Your task to perform on an android device: Add razer blade to the cart on walmart, then select checkout. Image 0: 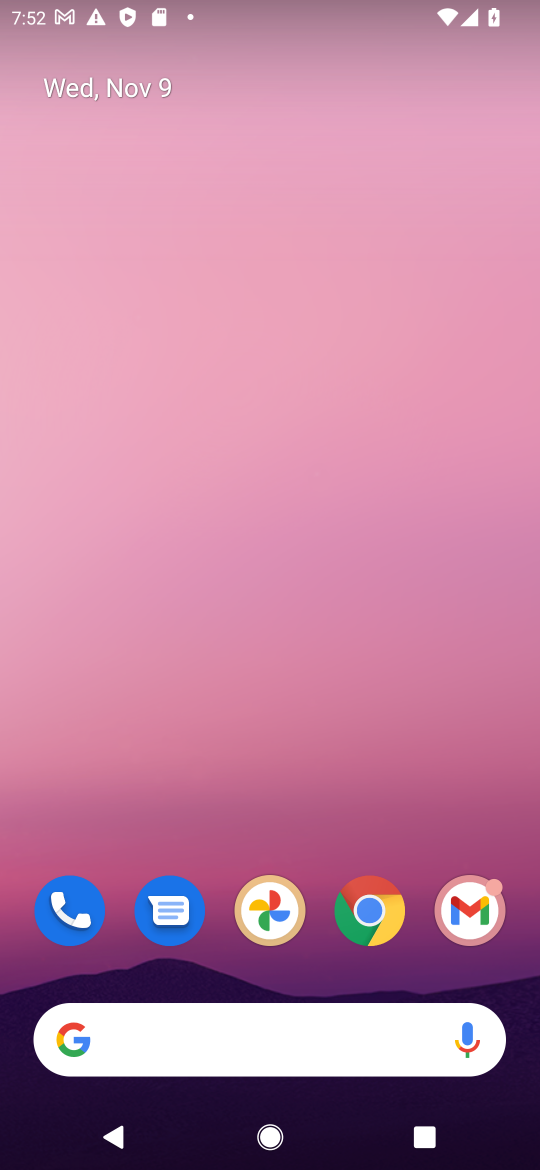
Step 0: click (371, 928)
Your task to perform on an android device: Add razer blade to the cart on walmart, then select checkout. Image 1: 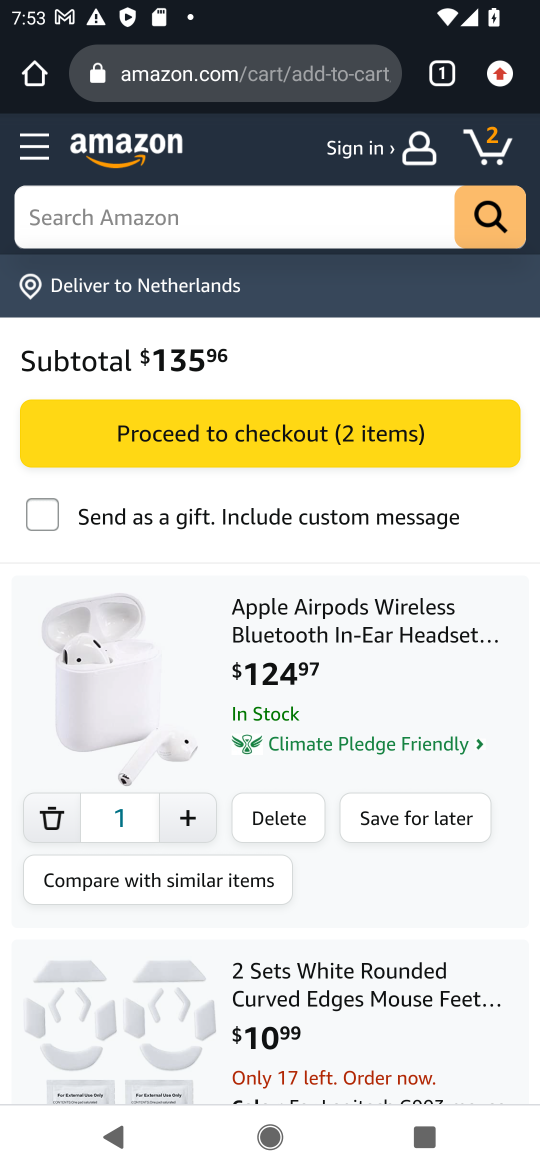
Step 1: click (208, 83)
Your task to perform on an android device: Add razer blade to the cart on walmart, then select checkout. Image 2: 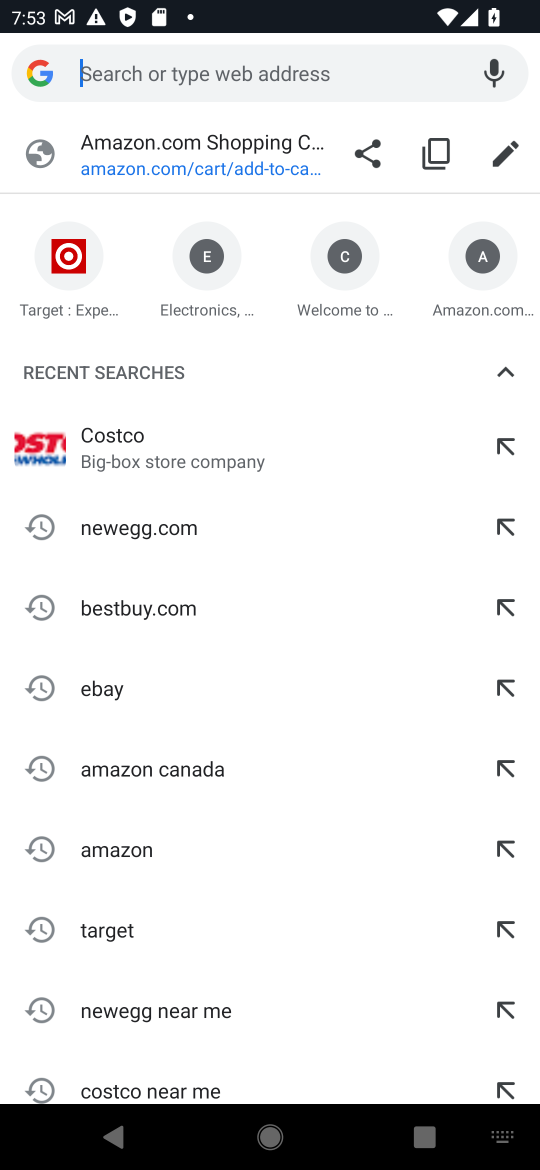
Step 2: type "walmart.com"
Your task to perform on an android device: Add razer blade to the cart on walmart, then select checkout. Image 3: 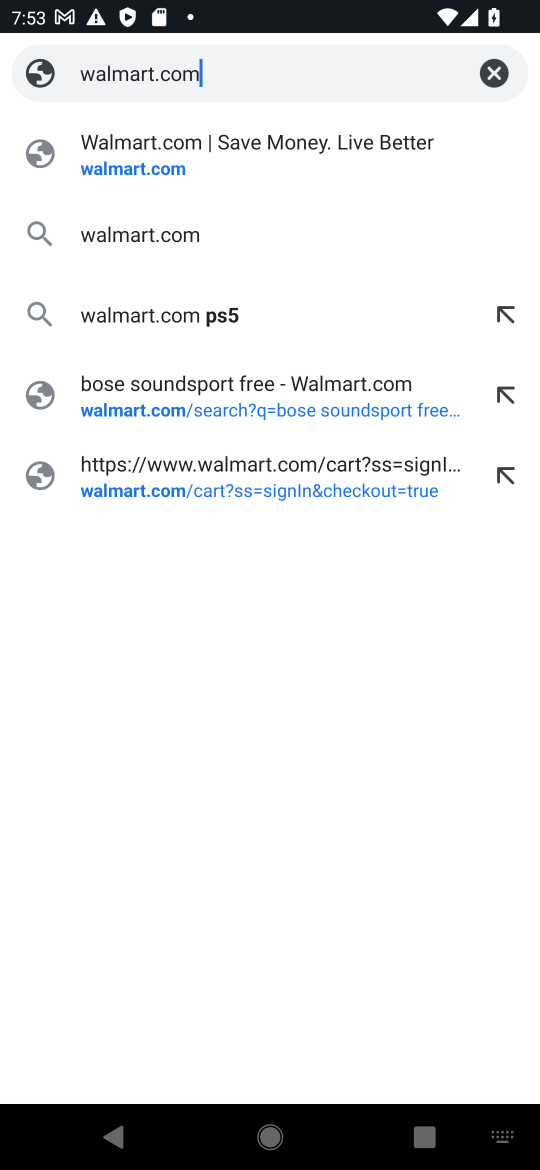
Step 3: click (123, 168)
Your task to perform on an android device: Add razer blade to the cart on walmart, then select checkout. Image 4: 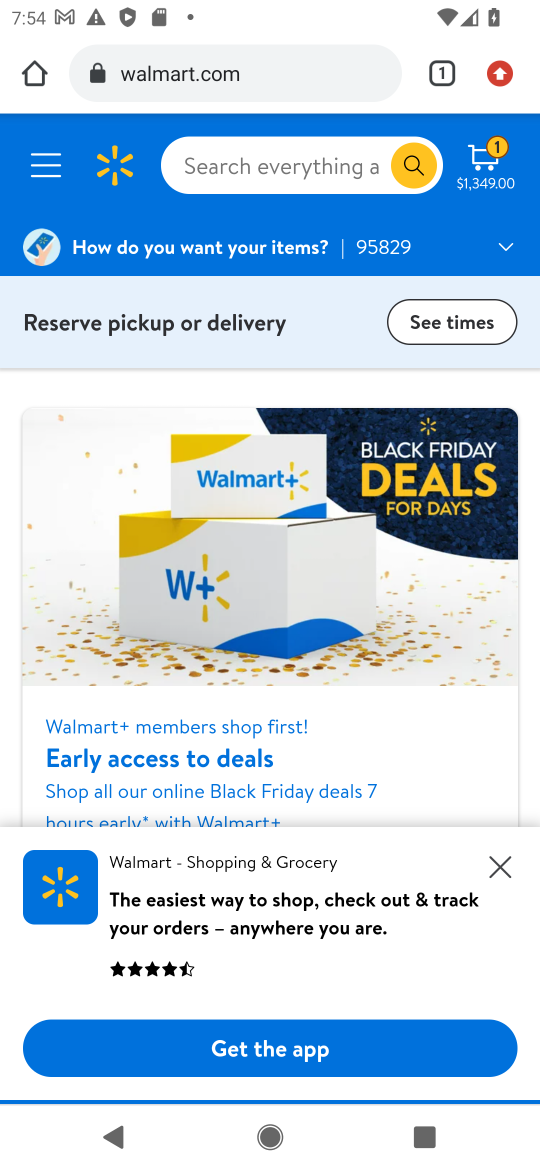
Step 4: click (312, 175)
Your task to perform on an android device: Add razer blade to the cart on walmart, then select checkout. Image 5: 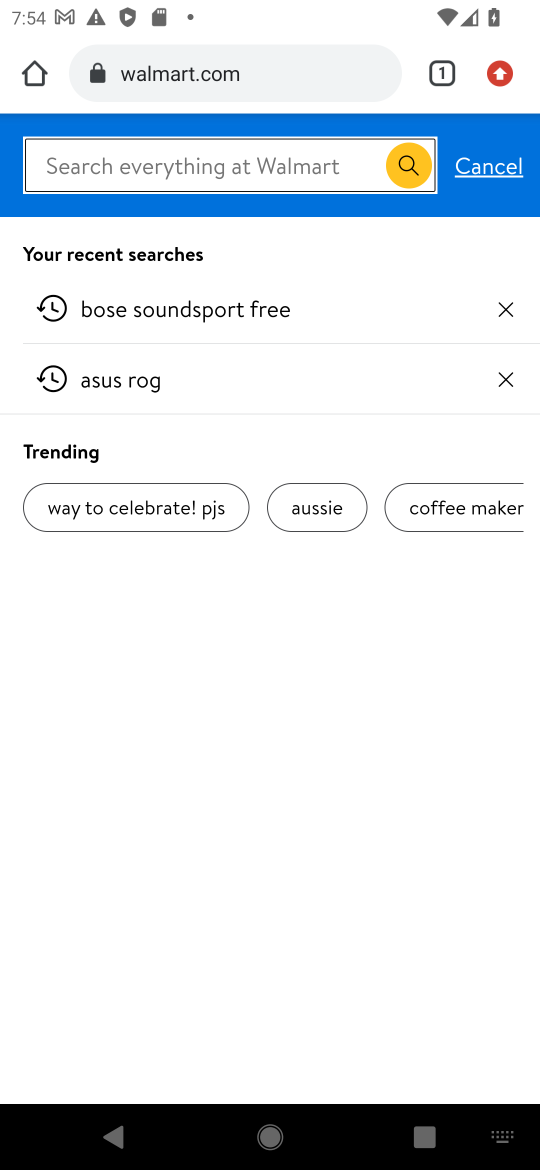
Step 5: type "razer blade"
Your task to perform on an android device: Add razer blade to the cart on walmart, then select checkout. Image 6: 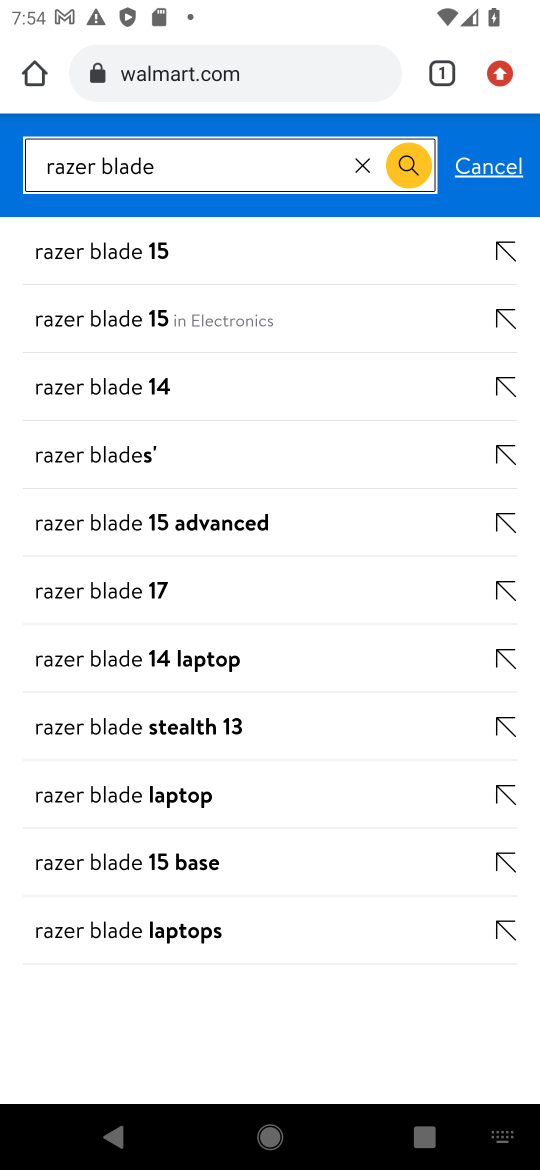
Step 6: click (414, 170)
Your task to perform on an android device: Add razer blade to the cart on walmart, then select checkout. Image 7: 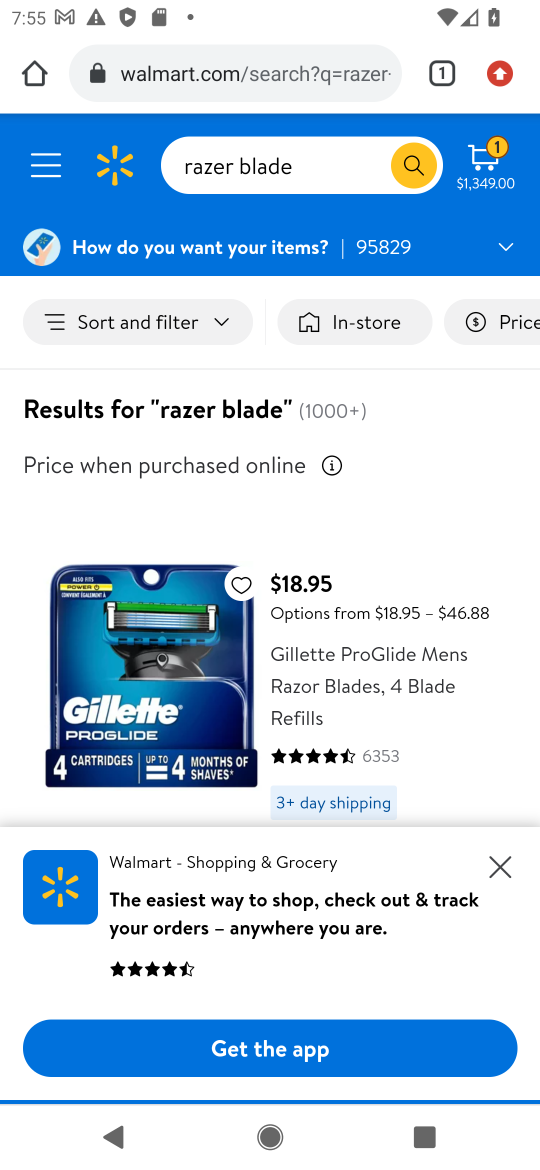
Step 7: drag from (385, 560) to (387, 378)
Your task to perform on an android device: Add razer blade to the cart on walmart, then select checkout. Image 8: 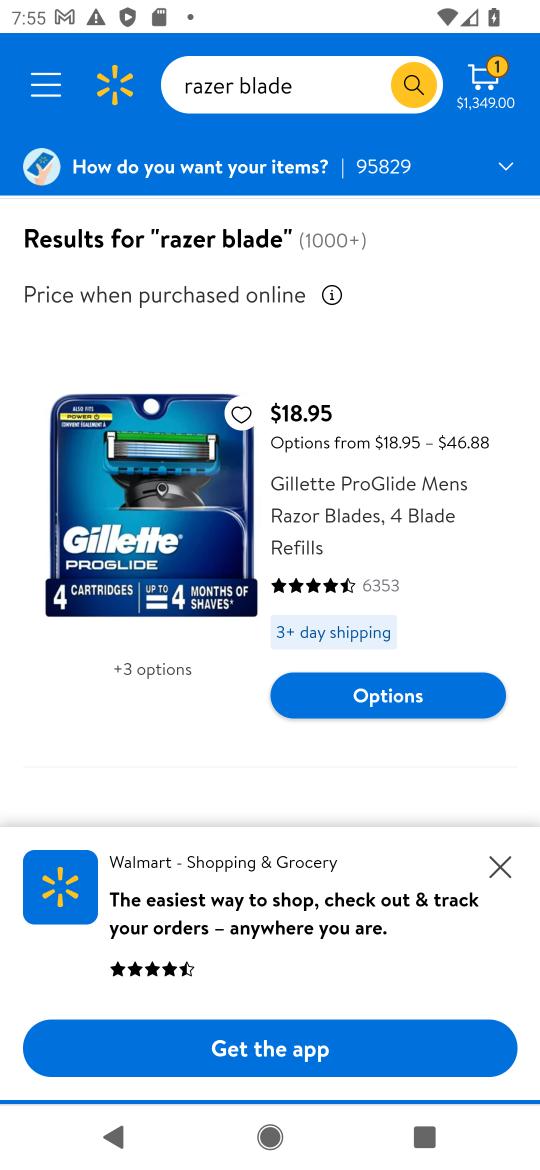
Step 8: drag from (225, 704) to (218, 322)
Your task to perform on an android device: Add razer blade to the cart on walmart, then select checkout. Image 9: 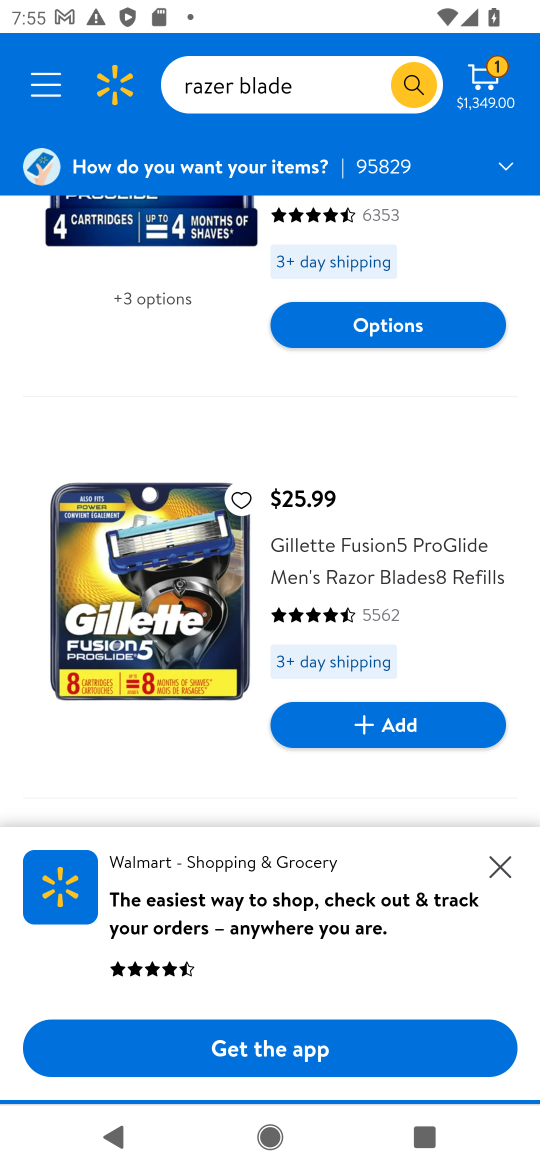
Step 9: drag from (175, 649) to (181, 317)
Your task to perform on an android device: Add razer blade to the cart on walmart, then select checkout. Image 10: 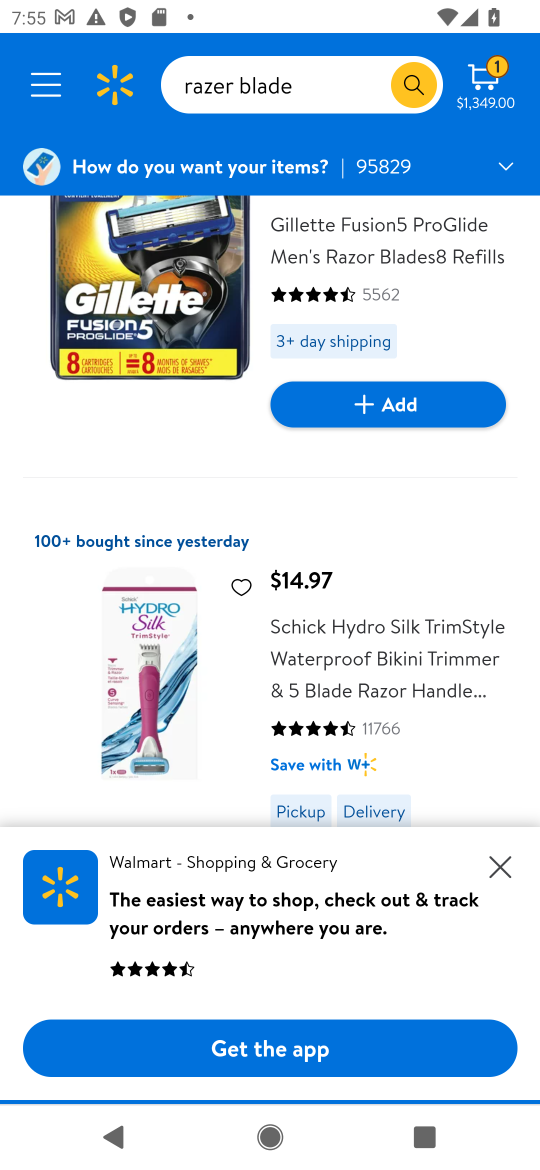
Step 10: drag from (174, 538) to (183, 316)
Your task to perform on an android device: Add razer blade to the cart on walmart, then select checkout. Image 11: 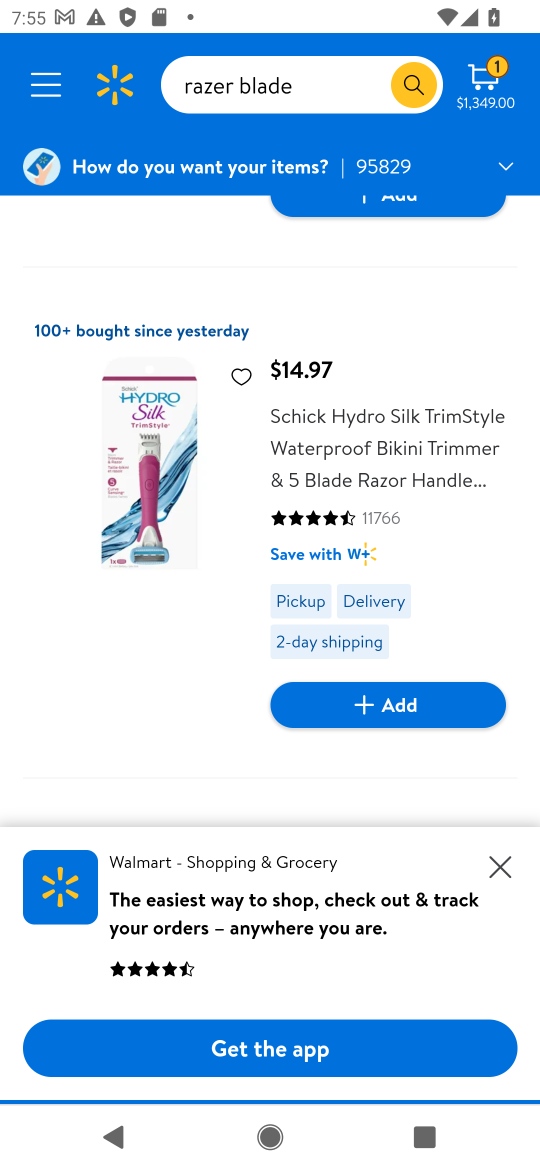
Step 11: drag from (201, 583) to (227, 208)
Your task to perform on an android device: Add razer blade to the cart on walmart, then select checkout. Image 12: 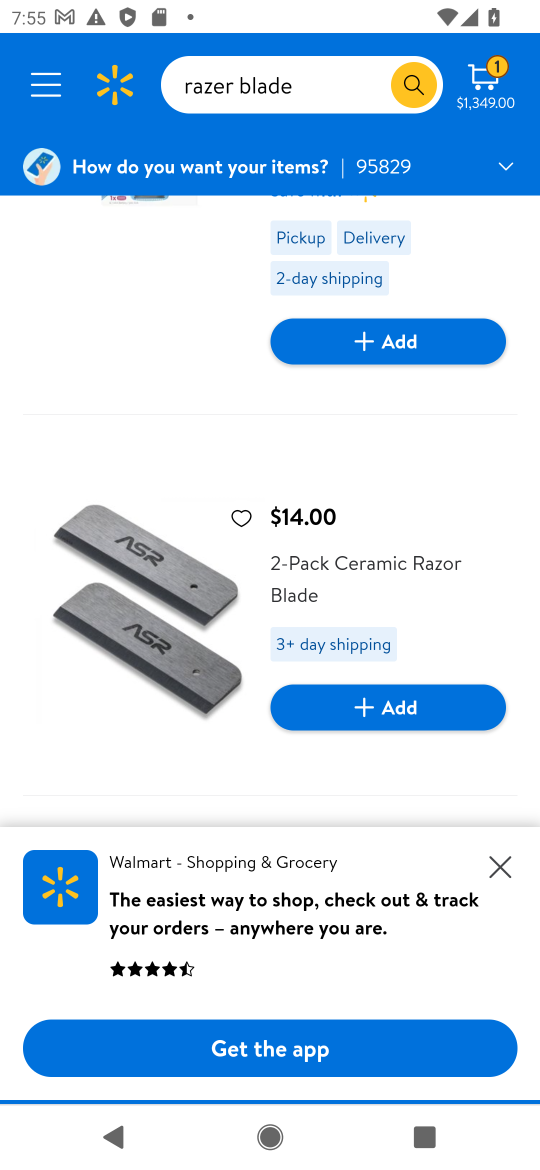
Step 12: drag from (164, 601) to (172, 357)
Your task to perform on an android device: Add razer blade to the cart on walmart, then select checkout. Image 13: 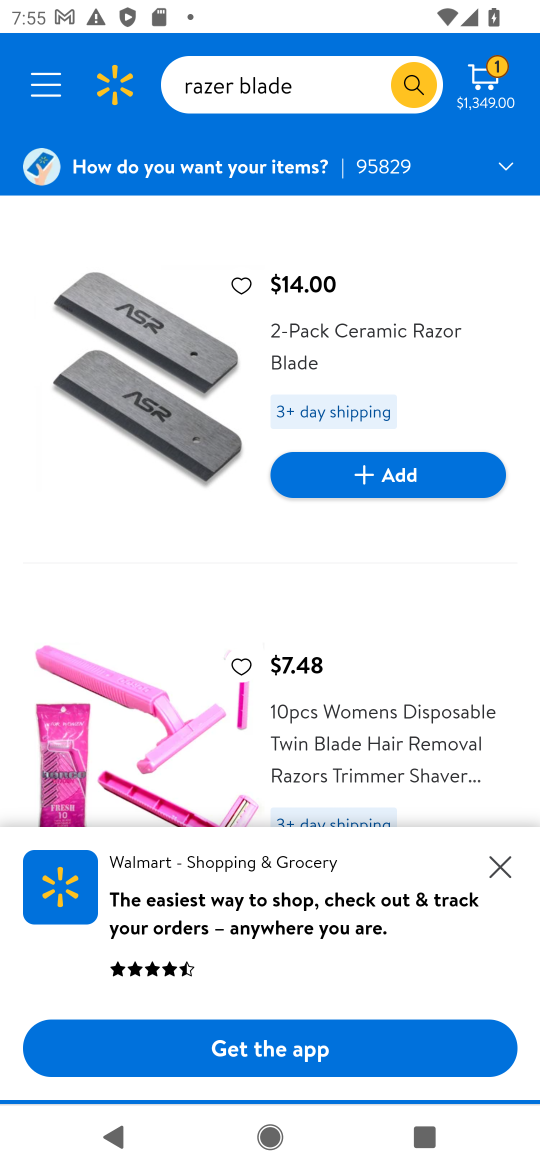
Step 13: drag from (175, 597) to (162, 324)
Your task to perform on an android device: Add razer blade to the cart on walmart, then select checkout. Image 14: 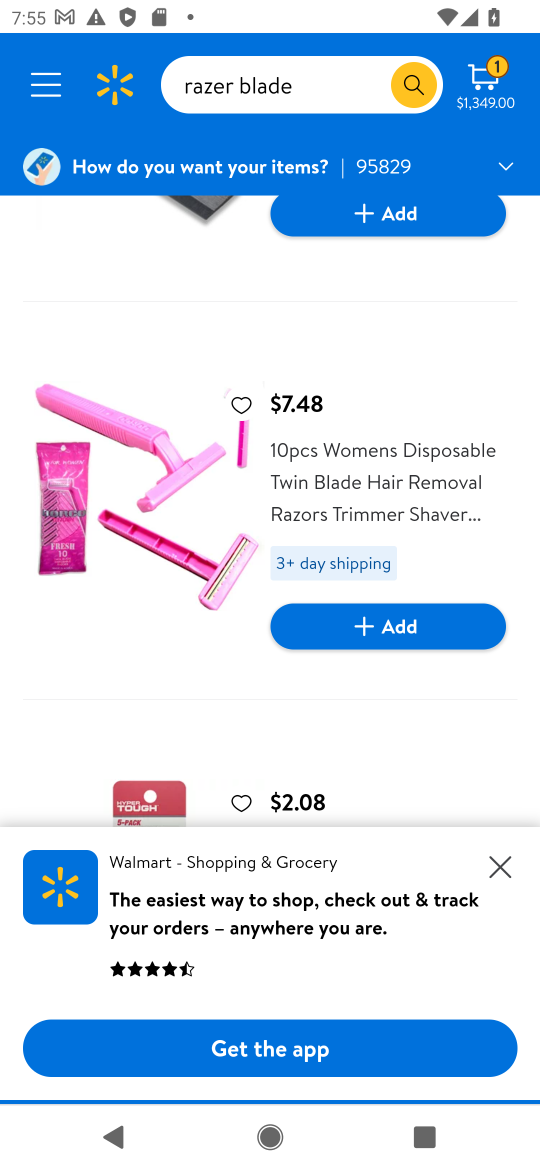
Step 14: drag from (166, 593) to (155, 308)
Your task to perform on an android device: Add razer blade to the cart on walmart, then select checkout. Image 15: 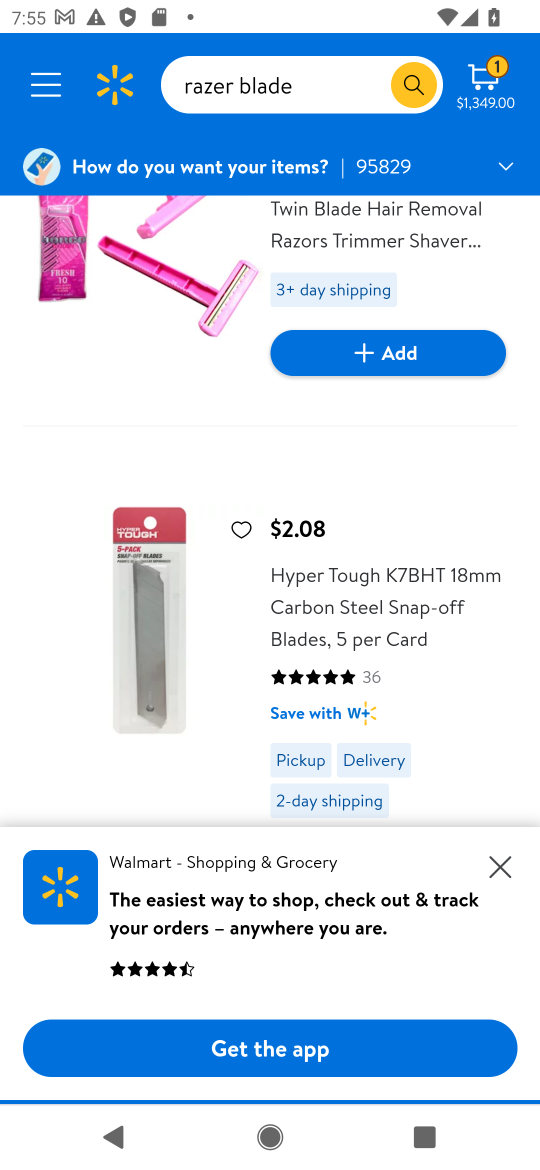
Step 15: drag from (193, 730) to (198, 314)
Your task to perform on an android device: Add razer blade to the cart on walmart, then select checkout. Image 16: 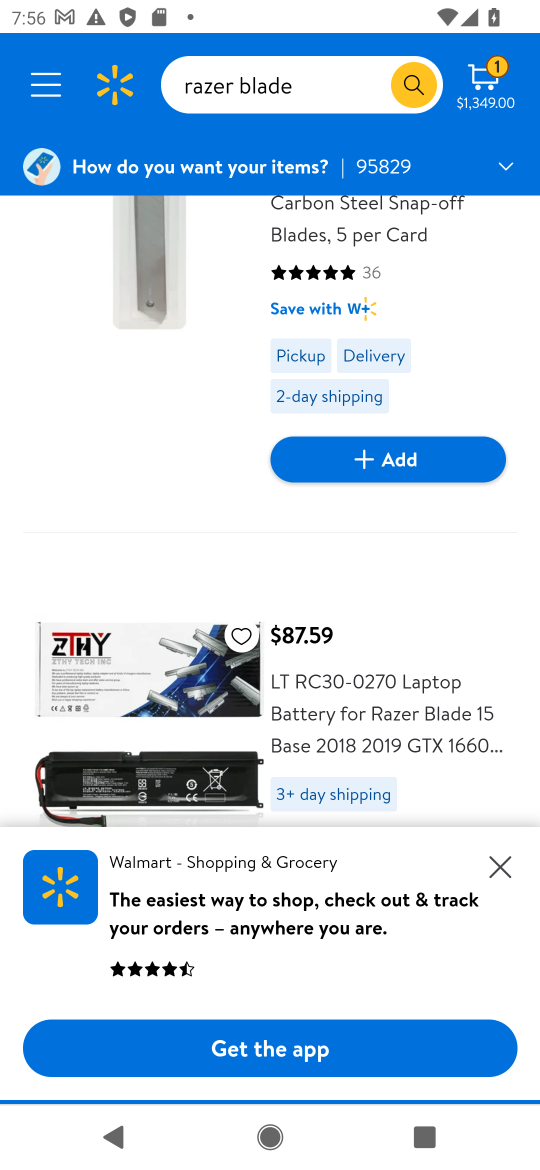
Step 16: drag from (172, 672) to (191, 436)
Your task to perform on an android device: Add razer blade to the cart on walmart, then select checkout. Image 17: 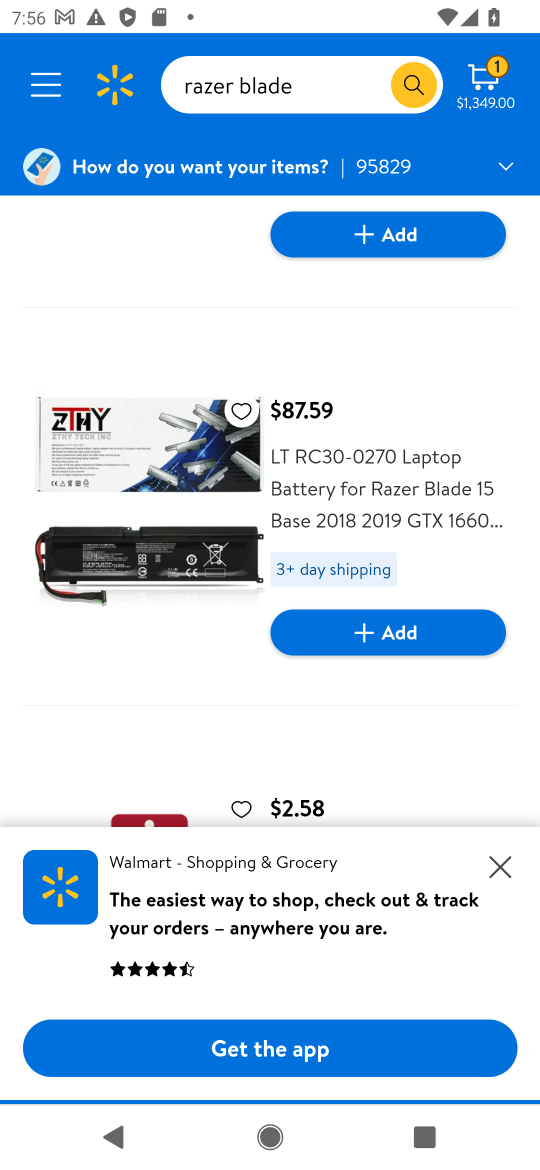
Step 17: click (367, 643)
Your task to perform on an android device: Add razer blade to the cart on walmart, then select checkout. Image 18: 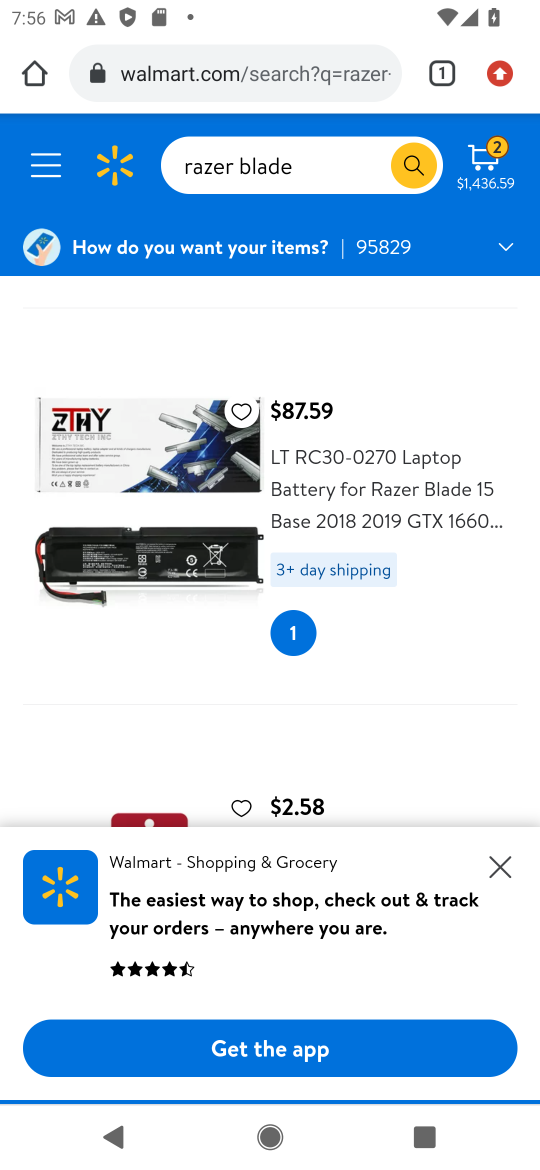
Step 18: click (481, 147)
Your task to perform on an android device: Add razer blade to the cart on walmart, then select checkout. Image 19: 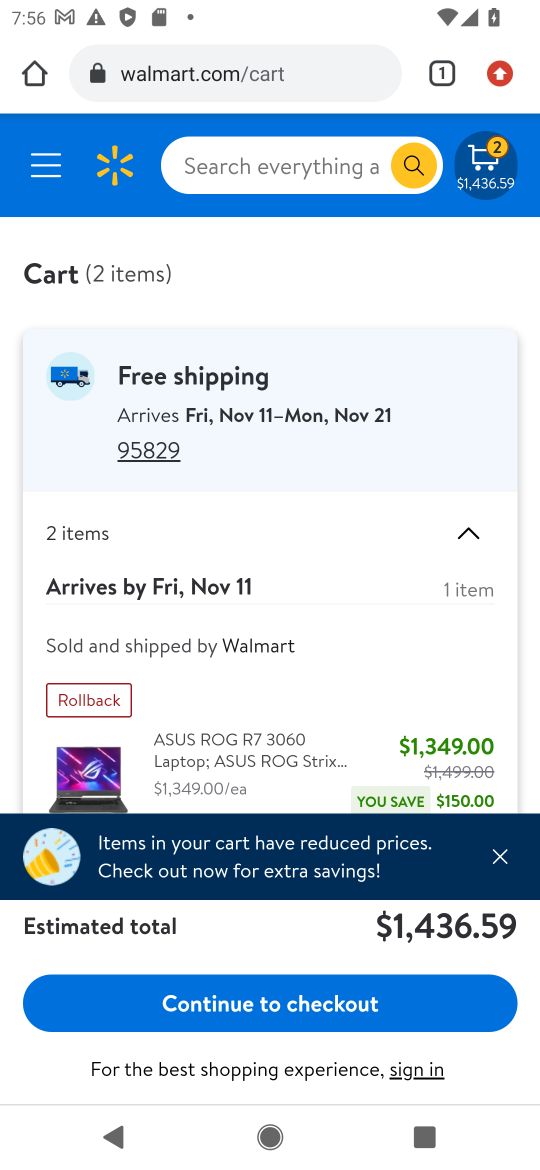
Step 19: click (245, 1006)
Your task to perform on an android device: Add razer blade to the cart on walmart, then select checkout. Image 20: 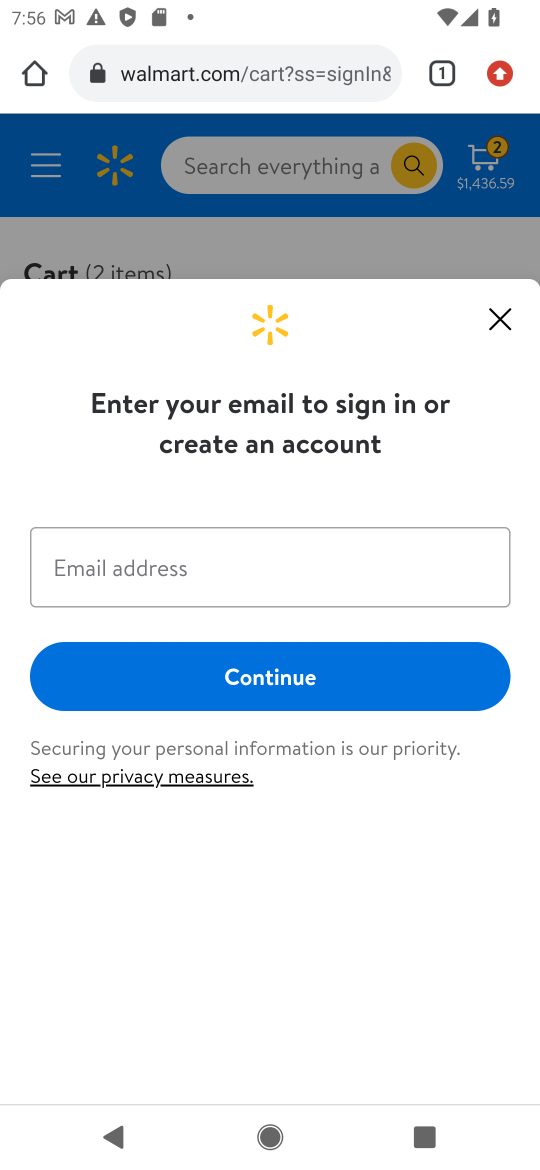
Step 20: task complete